Your task to perform on an android device: Go to sound settings Image 0: 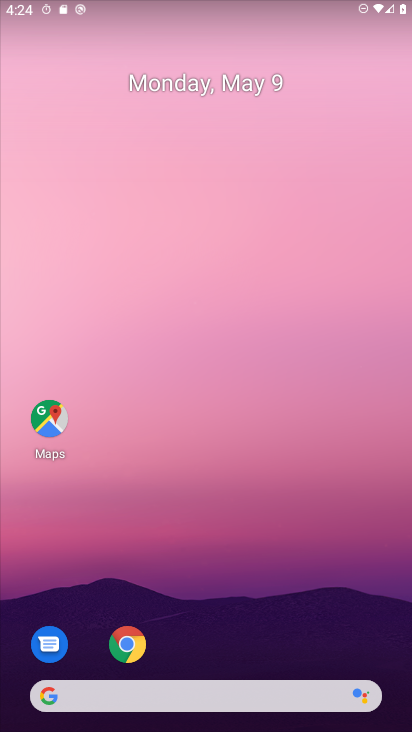
Step 0: drag from (226, 627) to (210, 168)
Your task to perform on an android device: Go to sound settings Image 1: 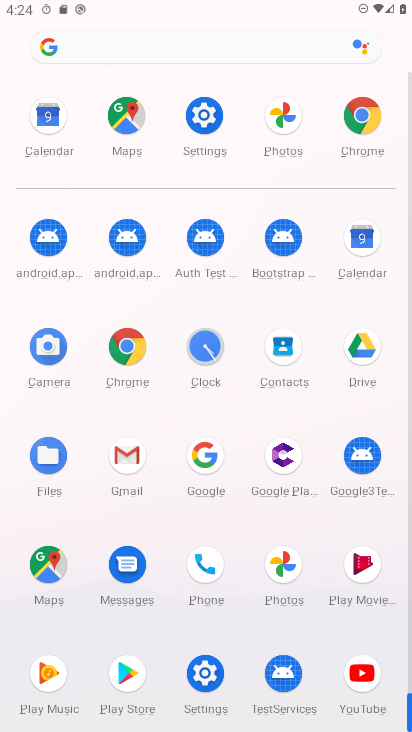
Step 1: click (192, 133)
Your task to perform on an android device: Go to sound settings Image 2: 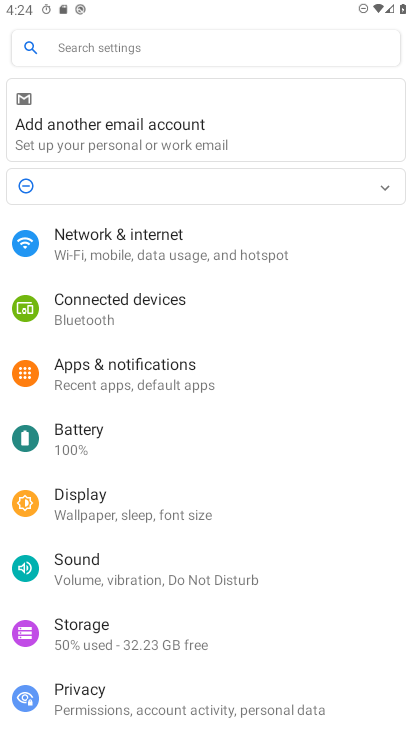
Step 2: click (53, 575)
Your task to perform on an android device: Go to sound settings Image 3: 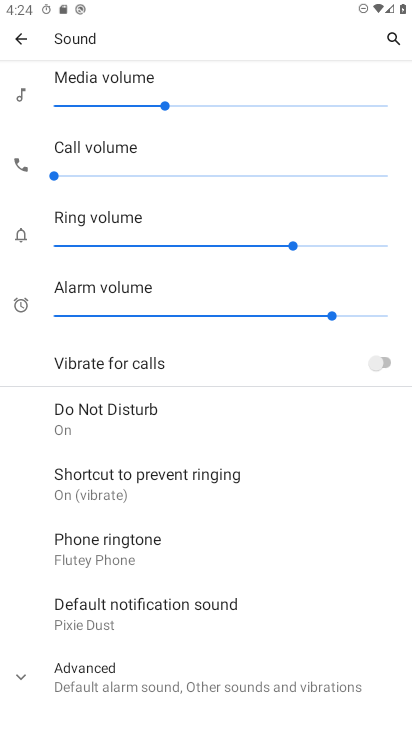
Step 3: task complete